Your task to perform on an android device: Check the news Image 0: 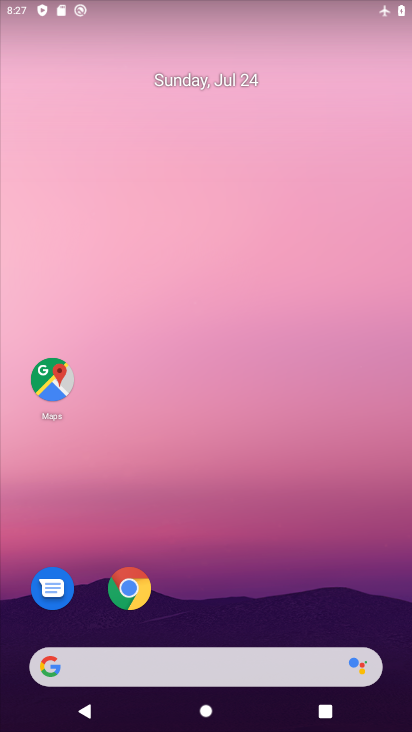
Step 0: click (129, 585)
Your task to perform on an android device: Check the news Image 1: 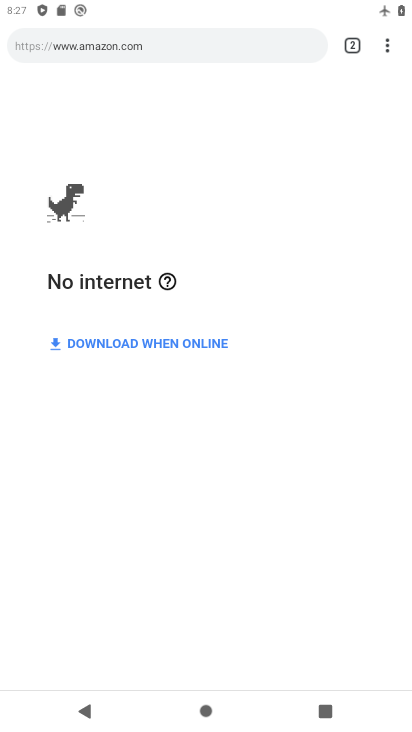
Step 1: click (392, 47)
Your task to perform on an android device: Check the news Image 2: 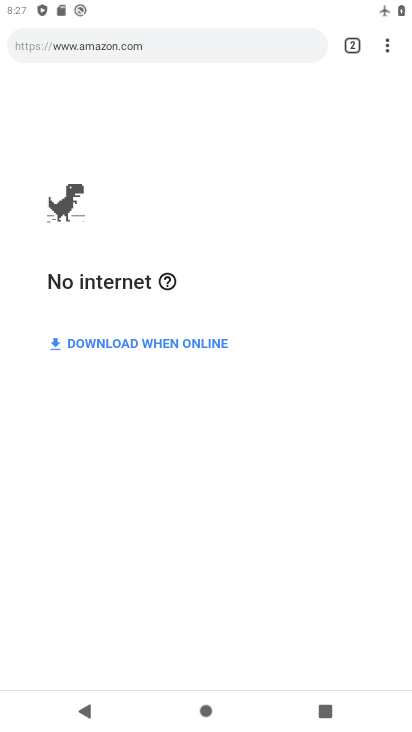
Step 2: click (392, 47)
Your task to perform on an android device: Check the news Image 3: 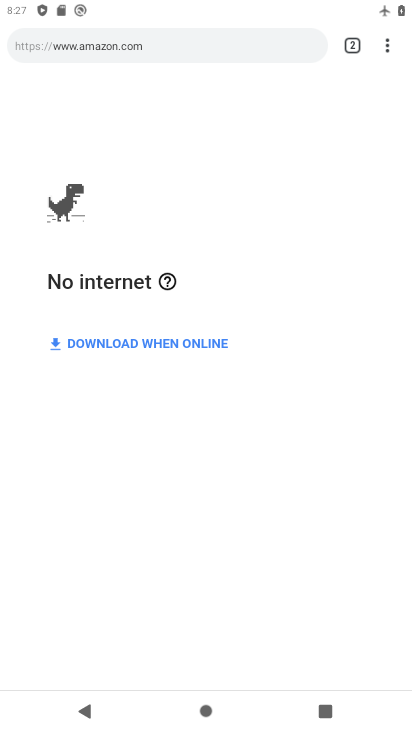
Step 3: click (392, 47)
Your task to perform on an android device: Check the news Image 4: 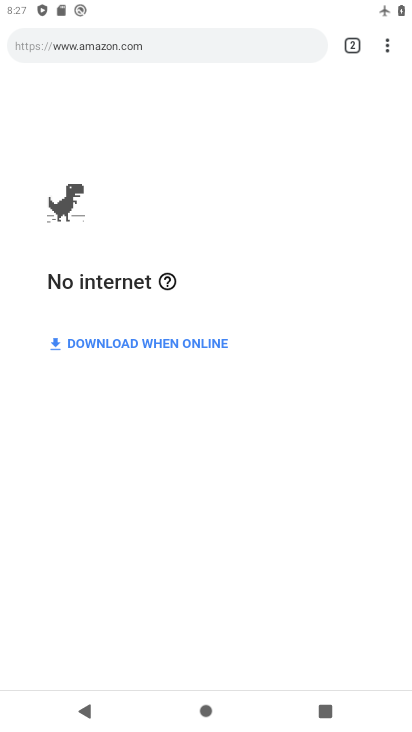
Step 4: click (390, 40)
Your task to perform on an android device: Check the news Image 5: 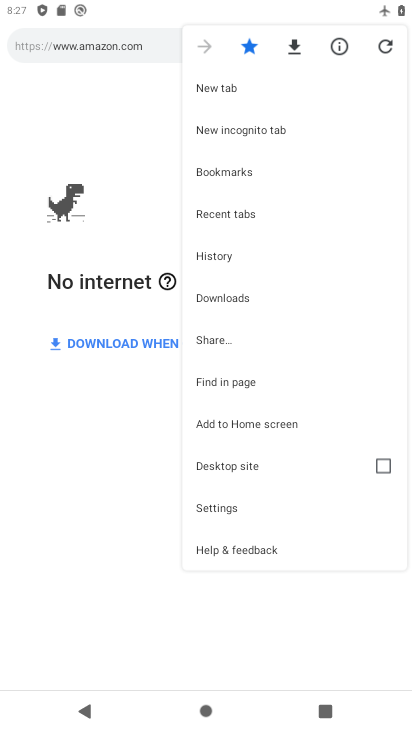
Step 5: click (223, 80)
Your task to perform on an android device: Check the news Image 6: 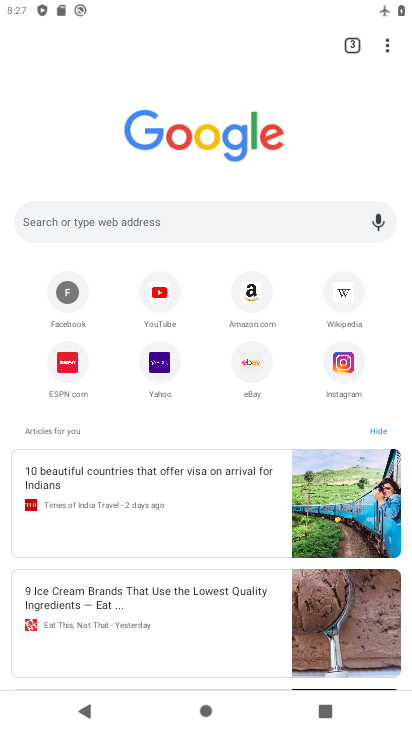
Step 6: click (263, 224)
Your task to perform on an android device: Check the news Image 7: 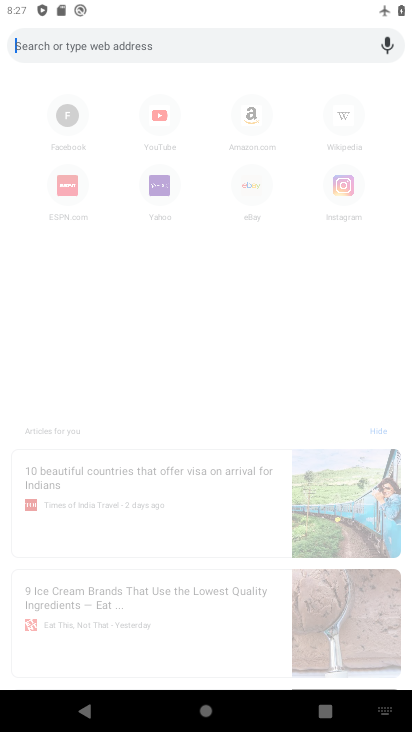
Step 7: type "Check the news "
Your task to perform on an android device: Check the news Image 8: 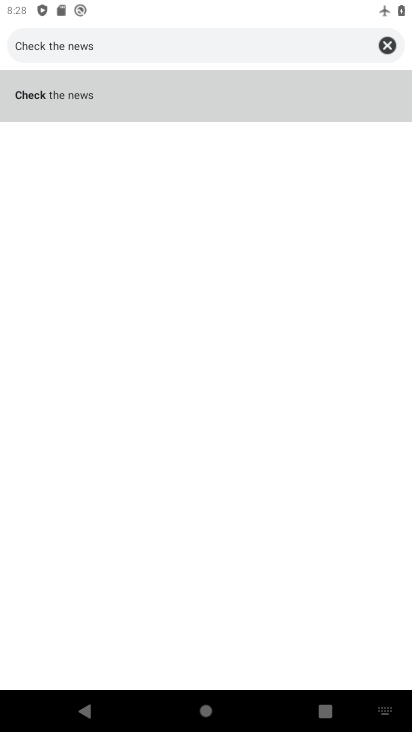
Step 8: click (278, 102)
Your task to perform on an android device: Check the news Image 9: 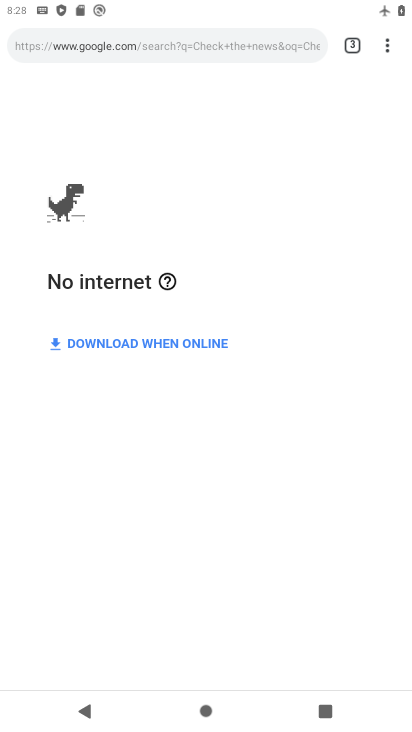
Step 9: task complete